Your task to perform on an android device: open app "Life360: Find Family & Friends" (install if not already installed) and go to login screen Image 0: 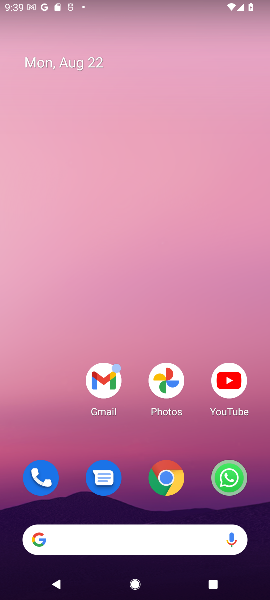
Step 0: drag from (179, 512) to (164, 64)
Your task to perform on an android device: open app "Life360: Find Family & Friends" (install if not already installed) and go to login screen Image 1: 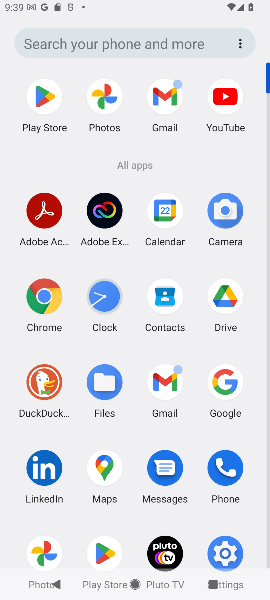
Step 1: click (61, 92)
Your task to perform on an android device: open app "Life360: Find Family & Friends" (install if not already installed) and go to login screen Image 2: 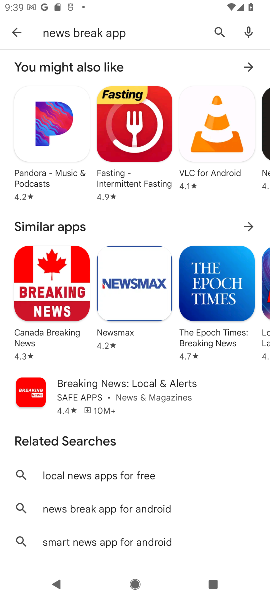
Step 2: click (210, 33)
Your task to perform on an android device: open app "Life360: Find Family & Friends" (install if not already installed) and go to login screen Image 3: 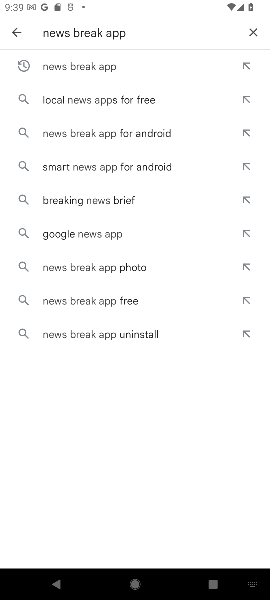
Step 3: click (248, 35)
Your task to perform on an android device: open app "Life360: Find Family & Friends" (install if not already installed) and go to login screen Image 4: 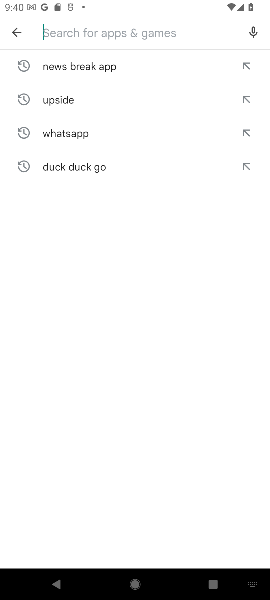
Step 4: type "life 360"
Your task to perform on an android device: open app "Life360: Find Family & Friends" (install if not already installed) and go to login screen Image 5: 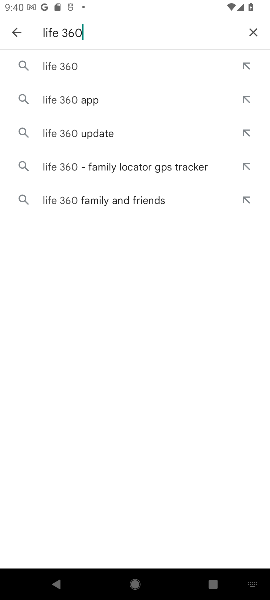
Step 5: click (94, 75)
Your task to perform on an android device: open app "Life360: Find Family & Friends" (install if not already installed) and go to login screen Image 6: 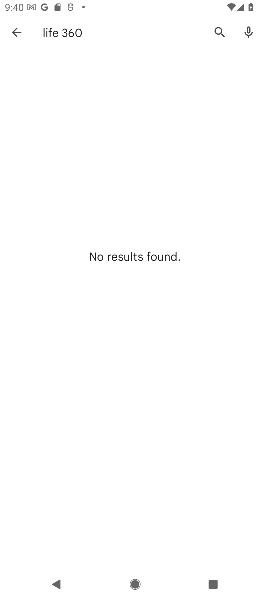
Step 6: task complete